Your task to perform on an android device: add a label to a message in the gmail app Image 0: 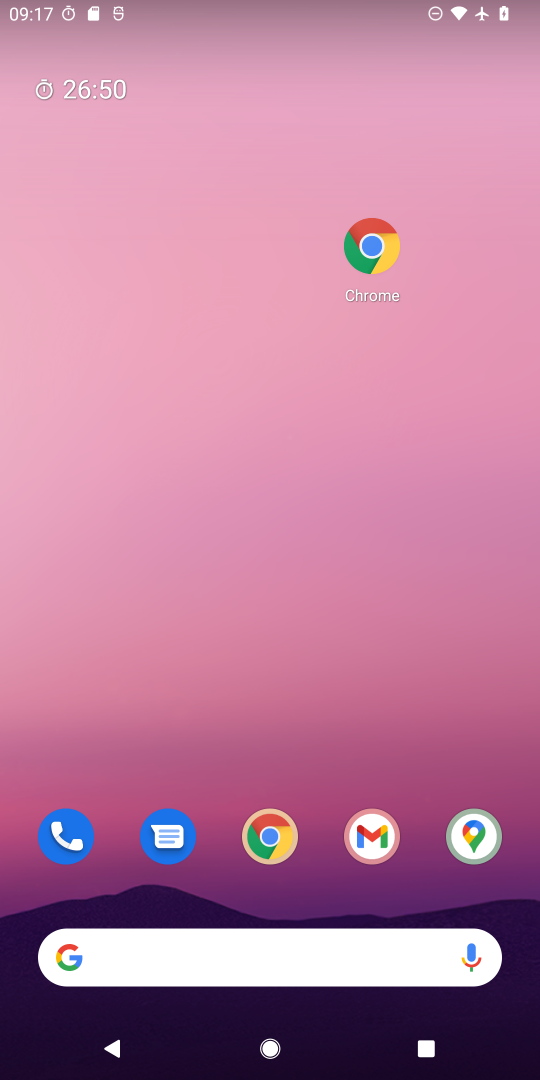
Step 0: drag from (215, 859) to (356, 48)
Your task to perform on an android device: add a label to a message in the gmail app Image 1: 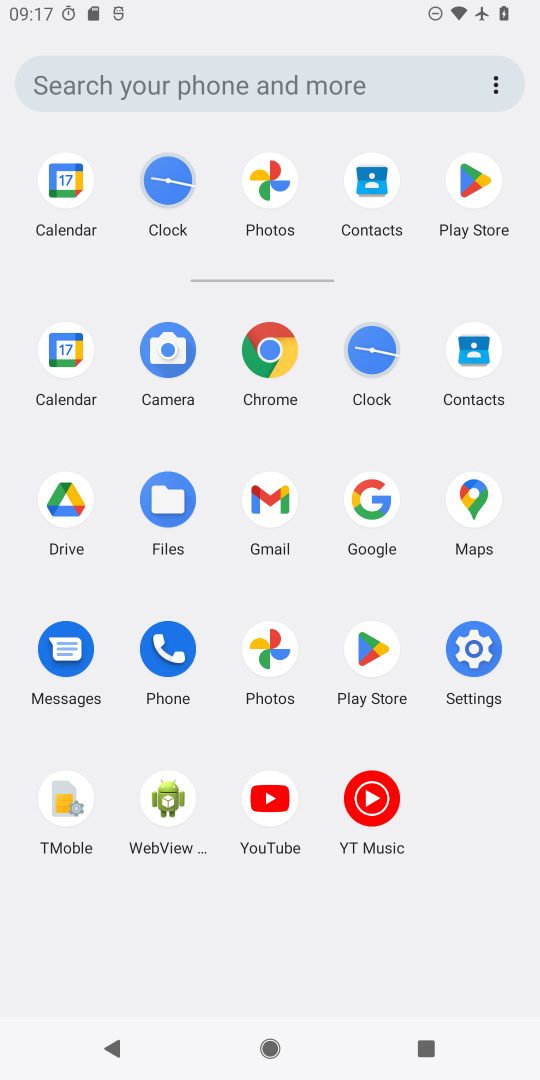
Step 1: click (266, 491)
Your task to perform on an android device: add a label to a message in the gmail app Image 2: 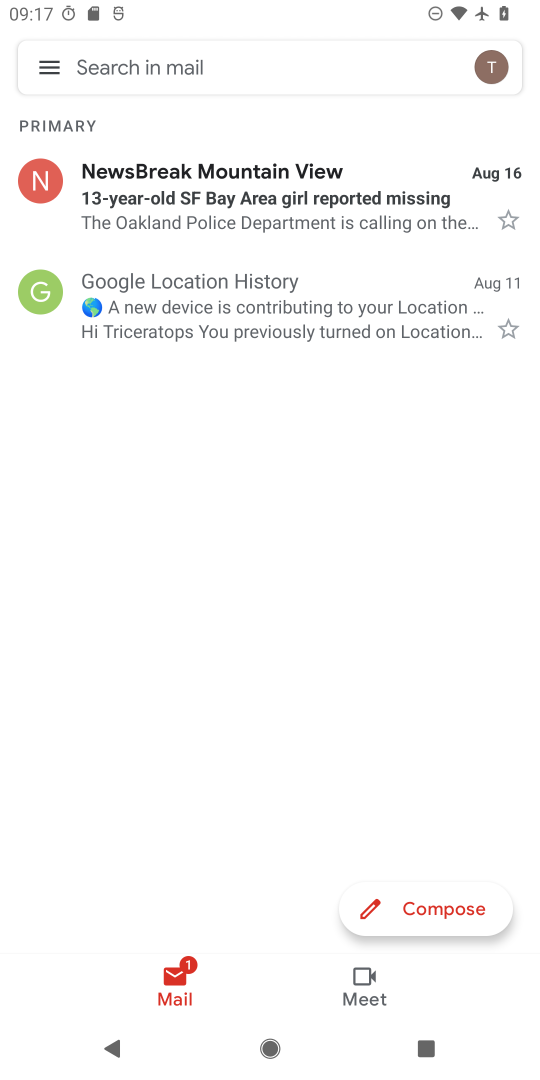
Step 2: click (31, 66)
Your task to perform on an android device: add a label to a message in the gmail app Image 3: 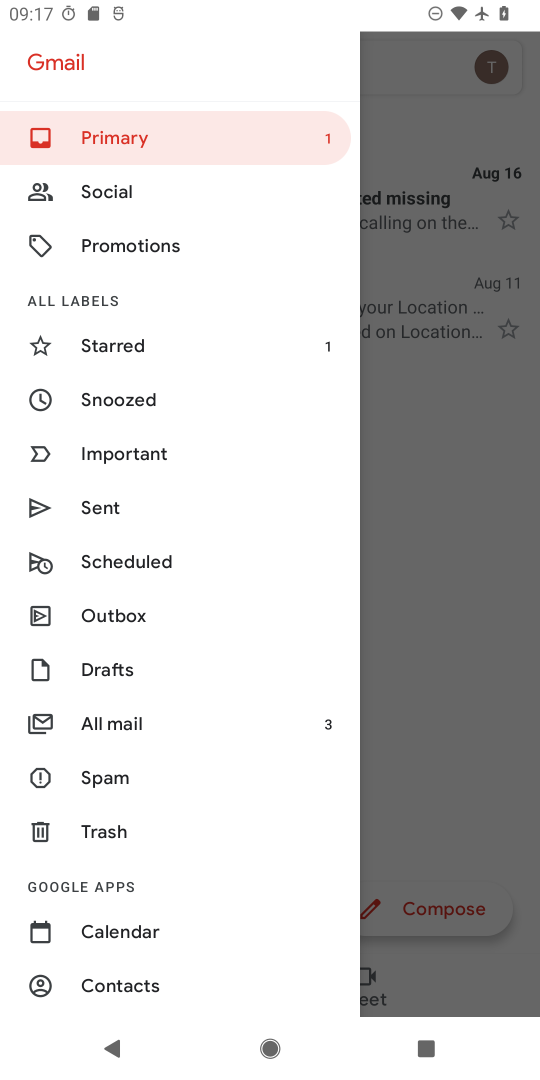
Step 3: click (146, 720)
Your task to perform on an android device: add a label to a message in the gmail app Image 4: 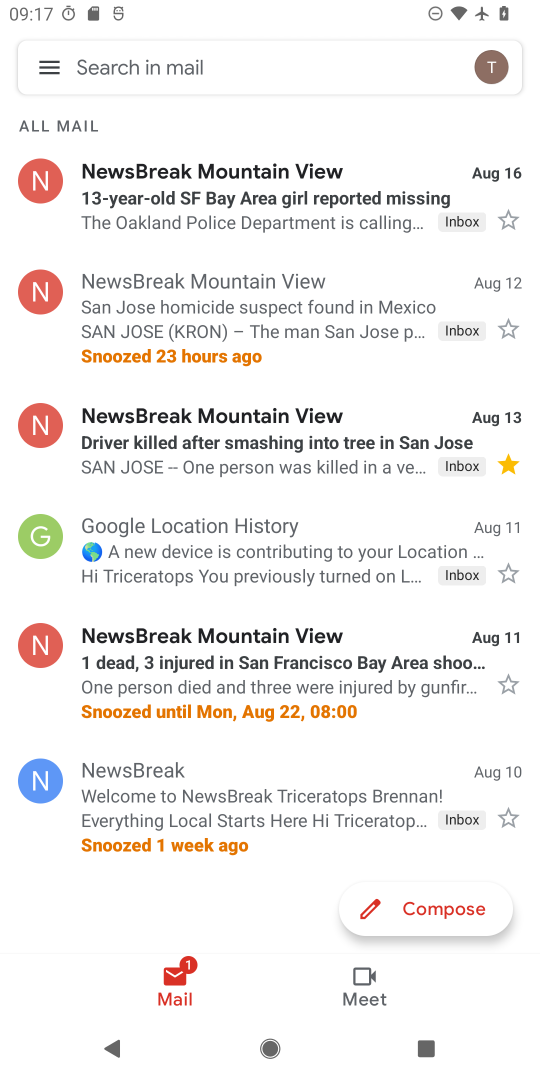
Step 4: click (199, 190)
Your task to perform on an android device: add a label to a message in the gmail app Image 5: 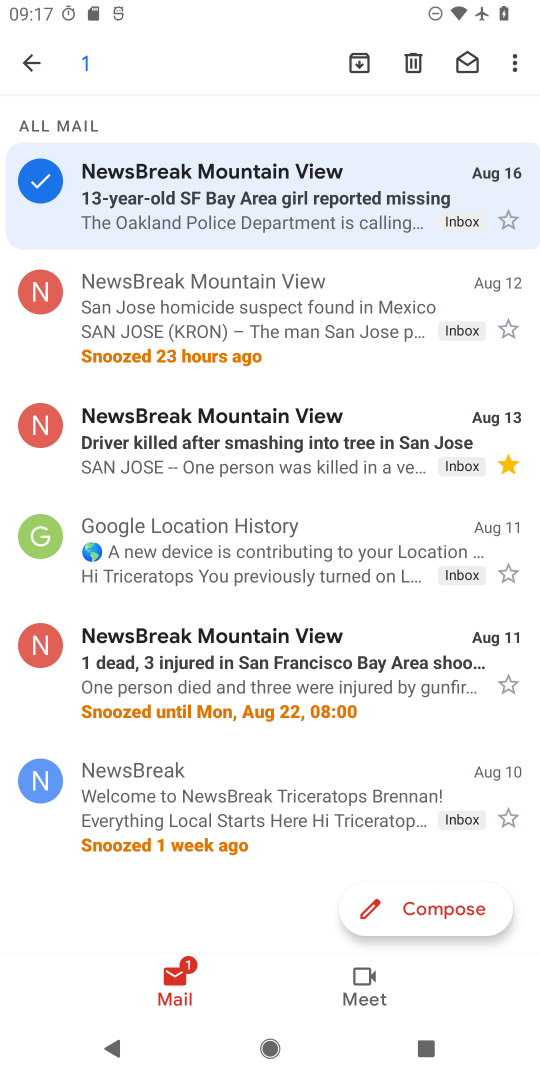
Step 5: click (508, 62)
Your task to perform on an android device: add a label to a message in the gmail app Image 6: 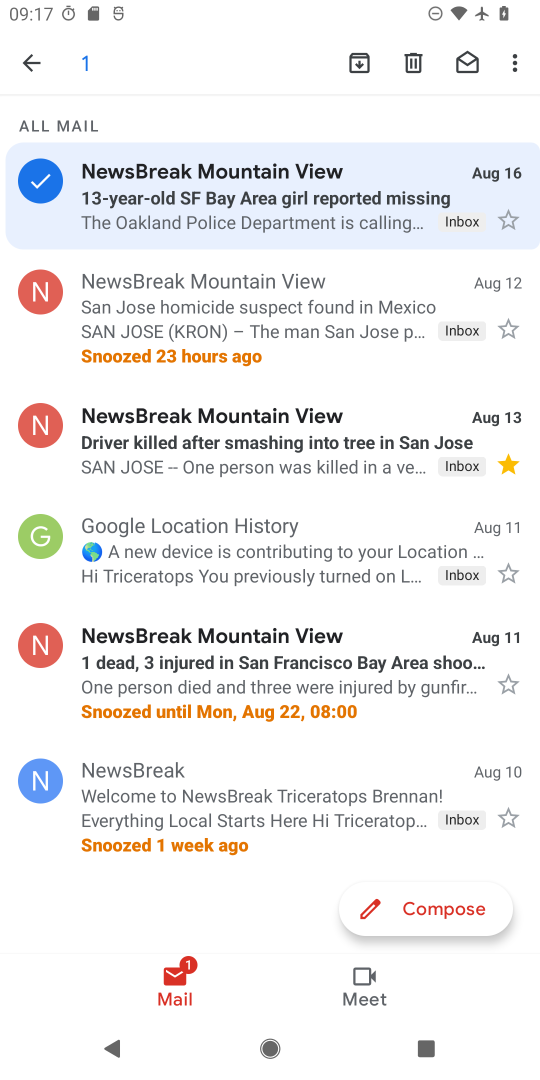
Step 6: click (510, 60)
Your task to perform on an android device: add a label to a message in the gmail app Image 7: 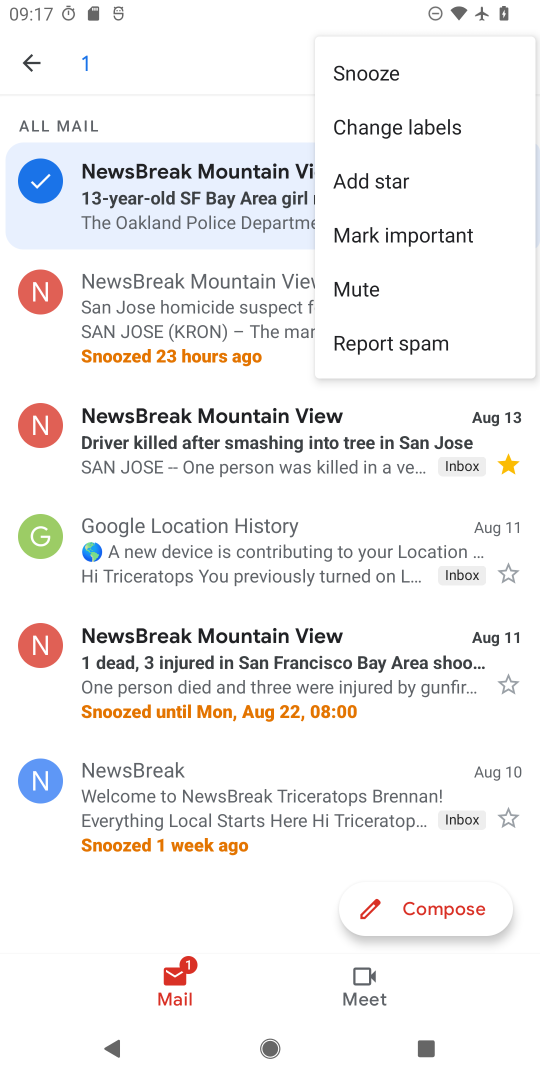
Step 7: click (419, 107)
Your task to perform on an android device: add a label to a message in the gmail app Image 8: 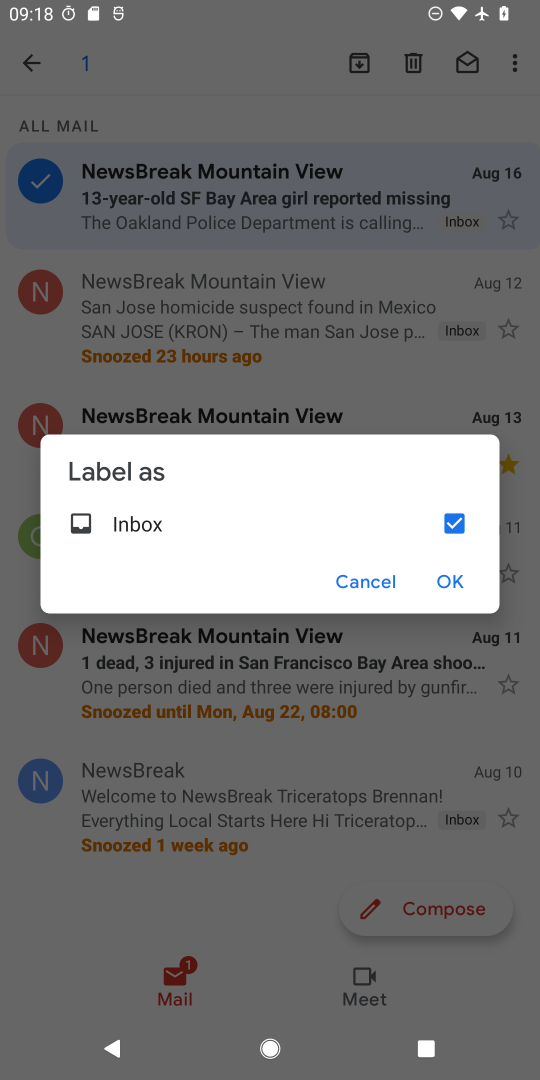
Step 8: click (444, 578)
Your task to perform on an android device: add a label to a message in the gmail app Image 9: 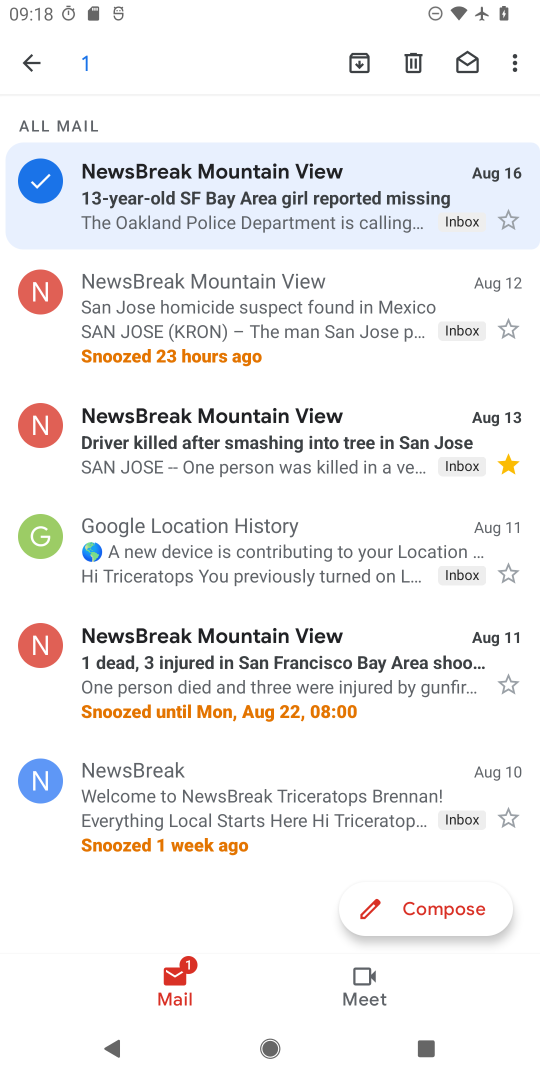
Step 9: task complete